Your task to perform on an android device: toggle data saver in the chrome app Image 0: 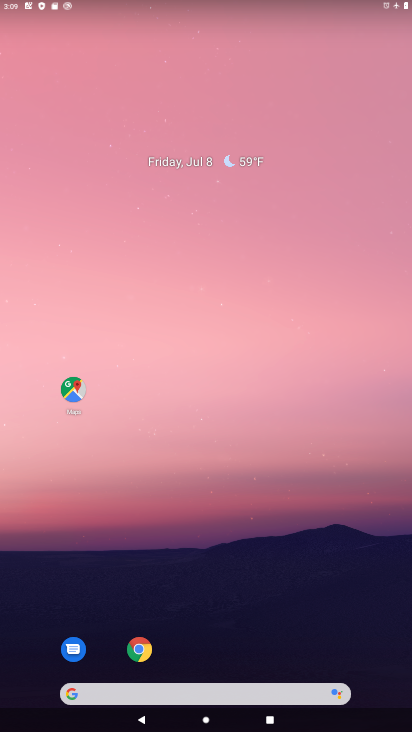
Step 0: drag from (324, 624) to (225, 192)
Your task to perform on an android device: toggle data saver in the chrome app Image 1: 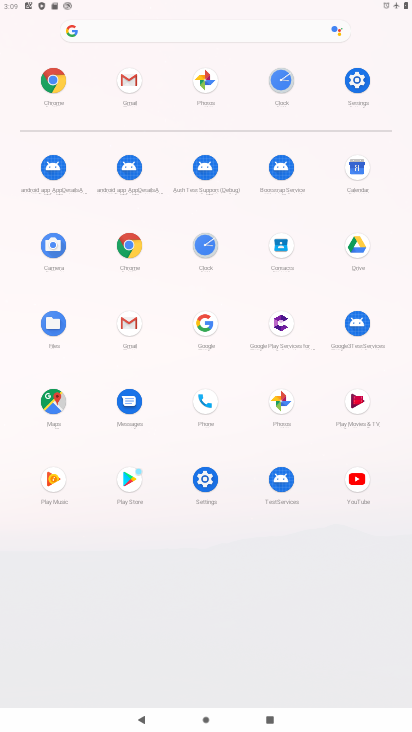
Step 1: click (53, 87)
Your task to perform on an android device: toggle data saver in the chrome app Image 2: 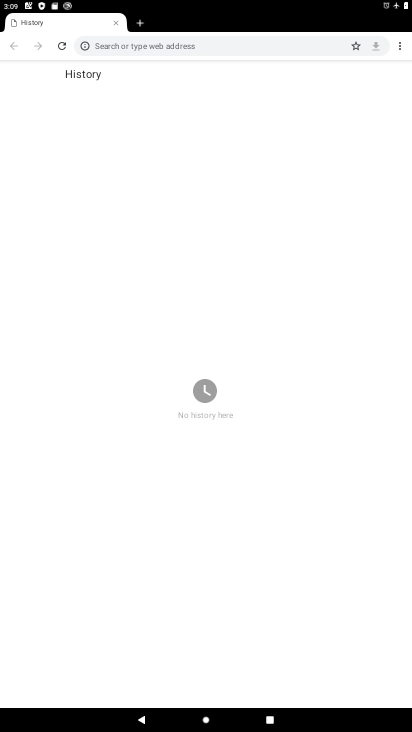
Step 2: click (401, 44)
Your task to perform on an android device: toggle data saver in the chrome app Image 3: 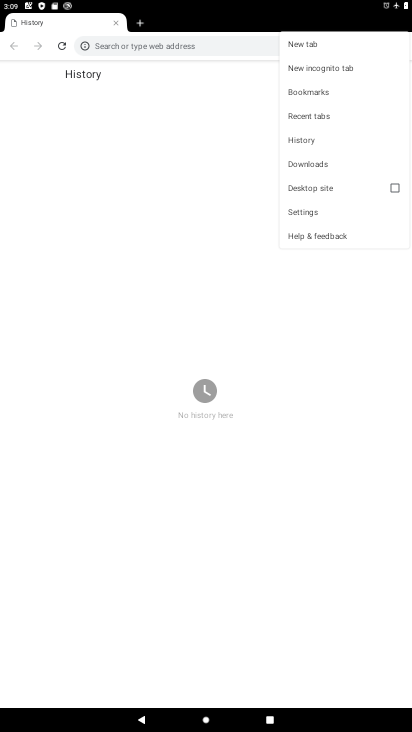
Step 3: click (304, 212)
Your task to perform on an android device: toggle data saver in the chrome app Image 4: 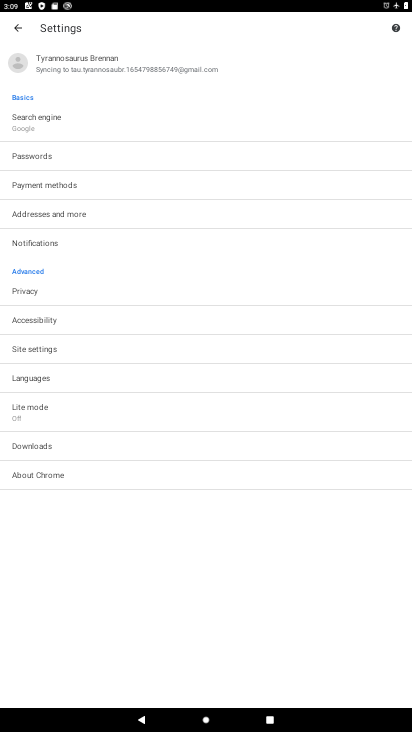
Step 4: click (34, 412)
Your task to perform on an android device: toggle data saver in the chrome app Image 5: 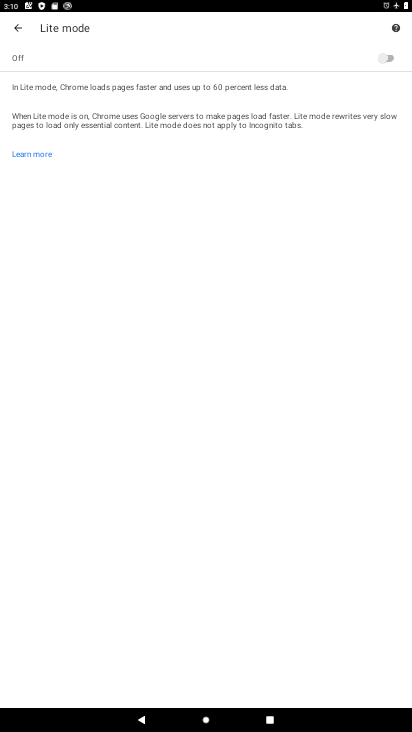
Step 5: click (391, 53)
Your task to perform on an android device: toggle data saver in the chrome app Image 6: 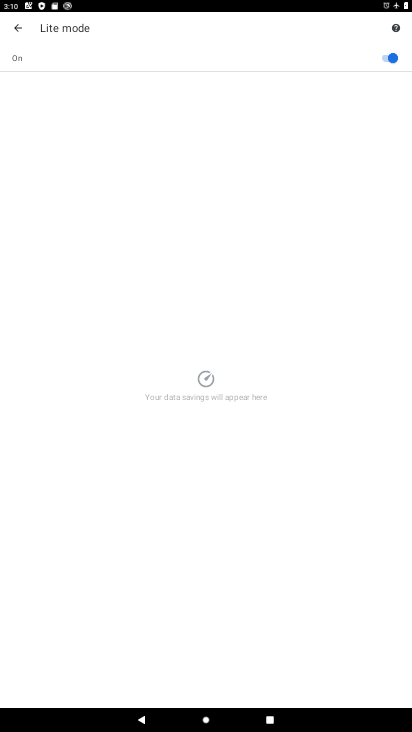
Step 6: task complete